Your task to perform on an android device: toggle notification dots Image 0: 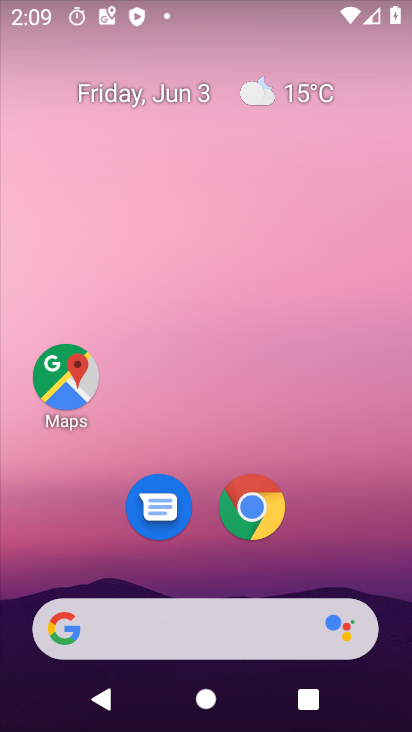
Step 0: drag from (404, 623) to (337, 98)
Your task to perform on an android device: toggle notification dots Image 1: 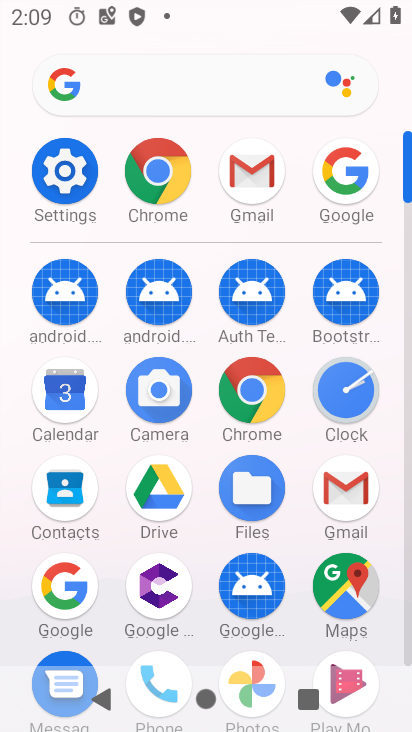
Step 1: click (75, 187)
Your task to perform on an android device: toggle notification dots Image 2: 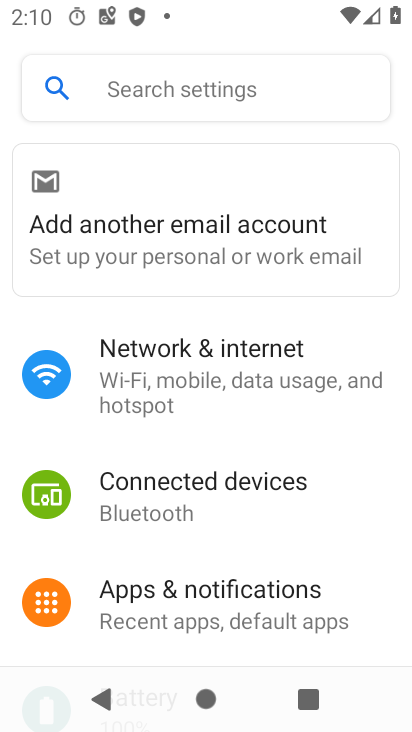
Step 2: click (212, 593)
Your task to perform on an android device: toggle notification dots Image 3: 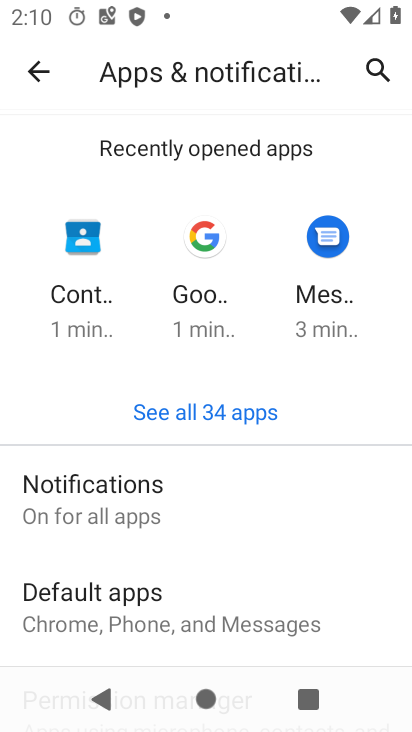
Step 3: click (228, 514)
Your task to perform on an android device: toggle notification dots Image 4: 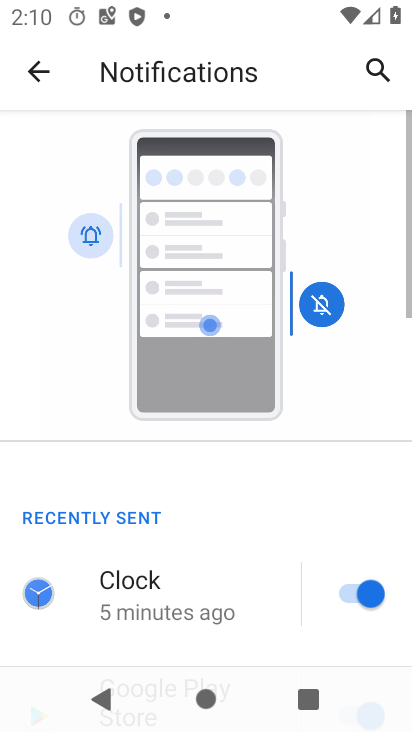
Step 4: drag from (254, 607) to (287, 67)
Your task to perform on an android device: toggle notification dots Image 5: 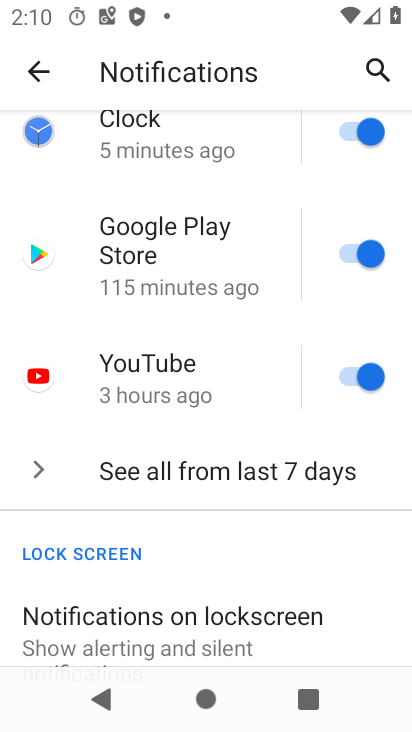
Step 5: drag from (206, 619) to (258, 156)
Your task to perform on an android device: toggle notification dots Image 6: 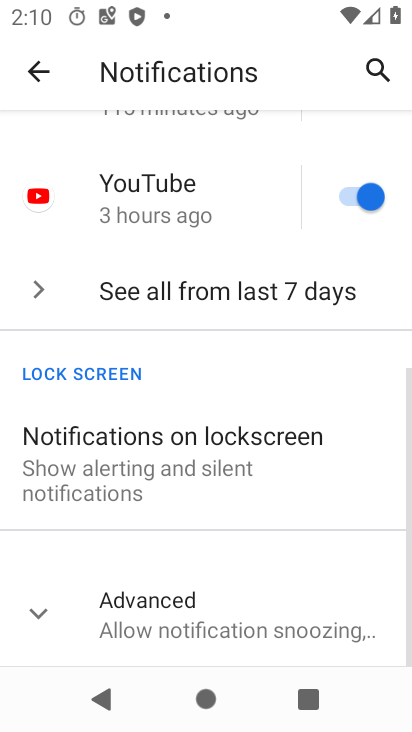
Step 6: click (204, 617)
Your task to perform on an android device: toggle notification dots Image 7: 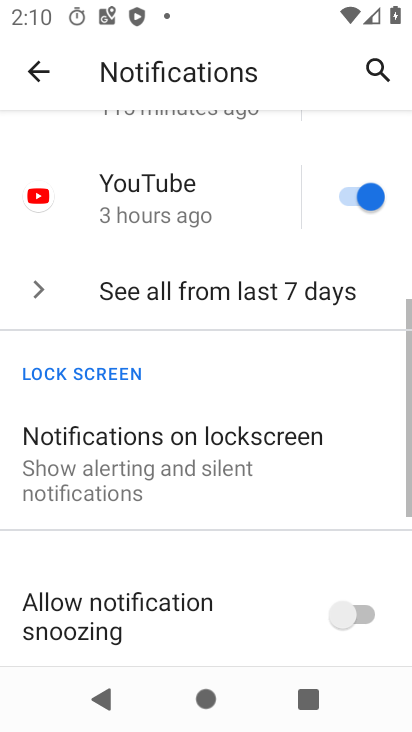
Step 7: drag from (266, 645) to (326, 218)
Your task to perform on an android device: toggle notification dots Image 8: 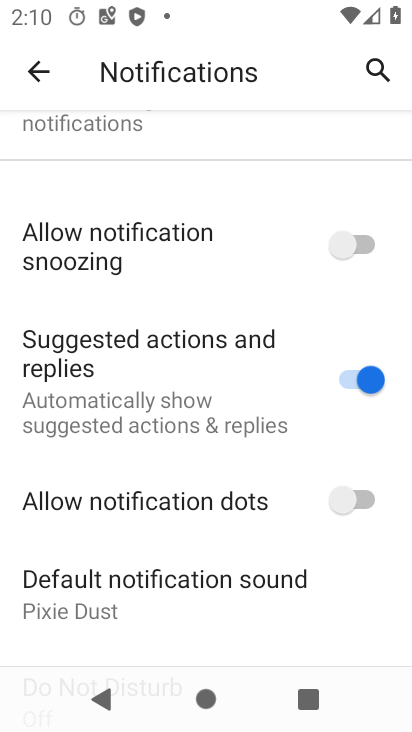
Step 8: click (307, 510)
Your task to perform on an android device: toggle notification dots Image 9: 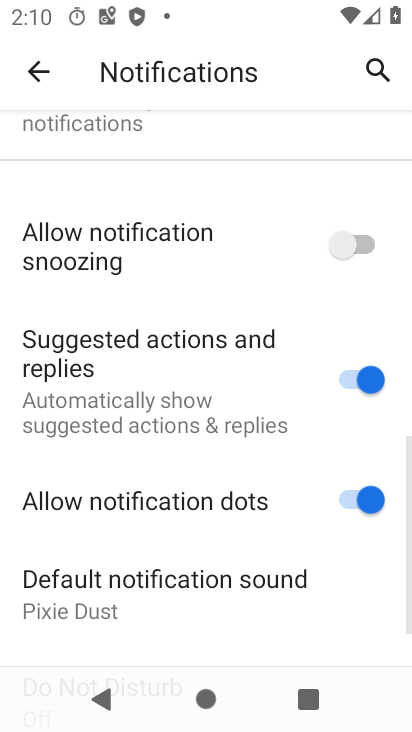
Step 9: task complete